Your task to perform on an android device: Open wifi settings Image 0: 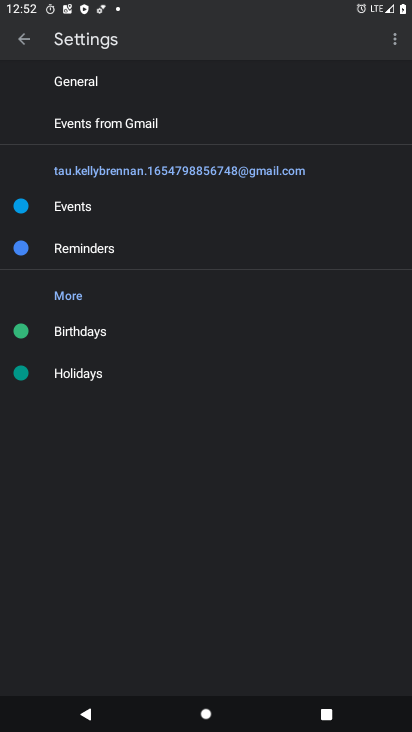
Step 0: press home button
Your task to perform on an android device: Open wifi settings Image 1: 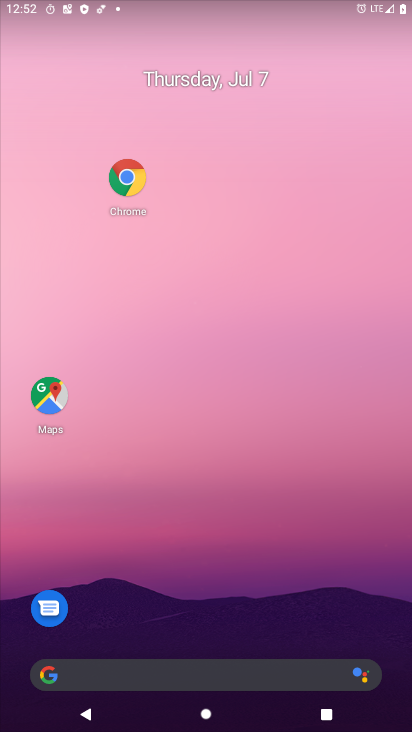
Step 1: drag from (120, 656) to (162, 15)
Your task to perform on an android device: Open wifi settings Image 2: 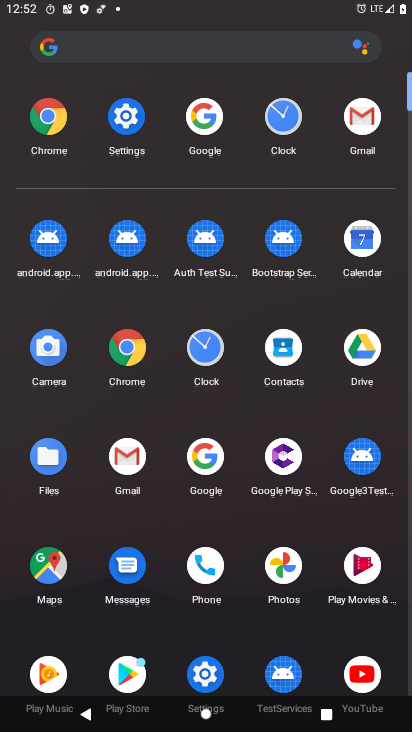
Step 2: click (126, 121)
Your task to perform on an android device: Open wifi settings Image 3: 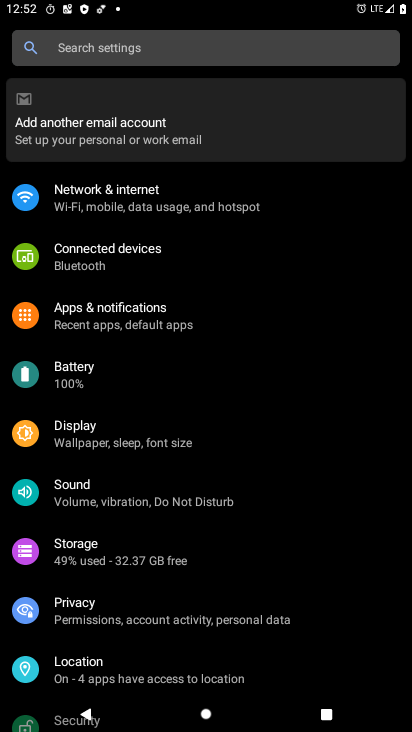
Step 3: click (83, 195)
Your task to perform on an android device: Open wifi settings Image 4: 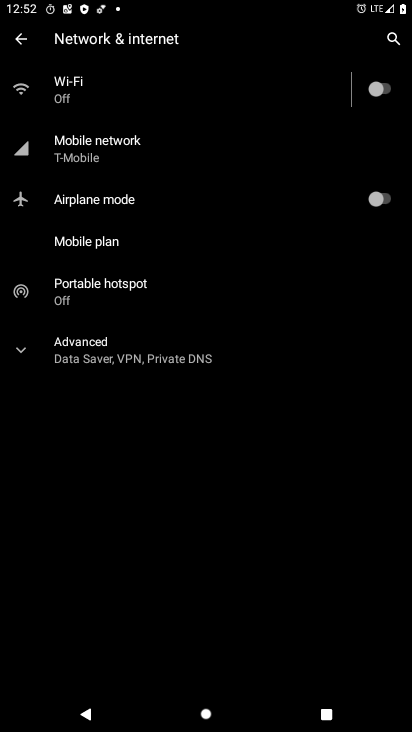
Step 4: click (84, 194)
Your task to perform on an android device: Open wifi settings Image 5: 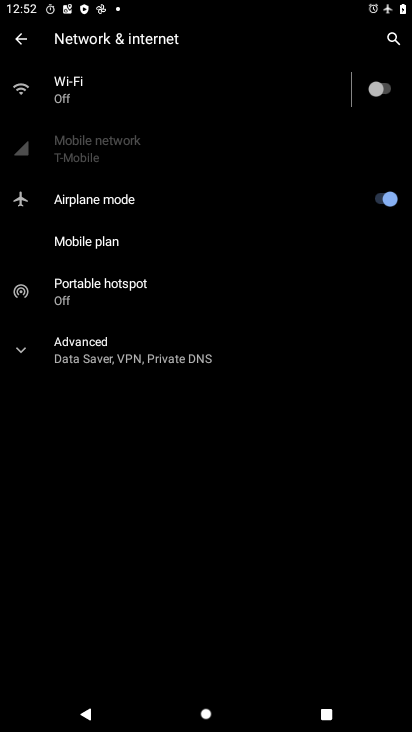
Step 5: click (74, 91)
Your task to perform on an android device: Open wifi settings Image 6: 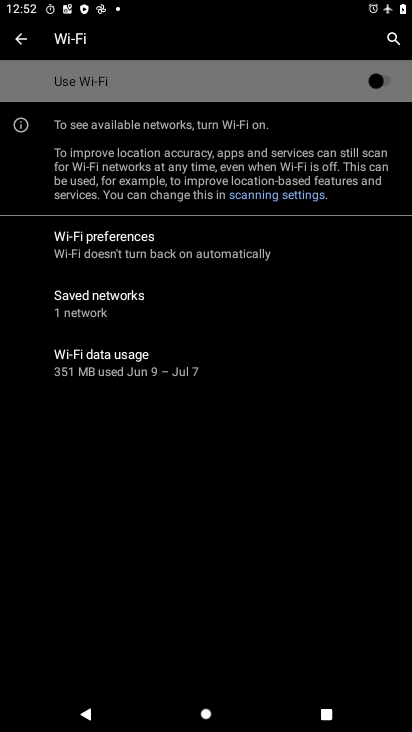
Step 6: click (15, 45)
Your task to perform on an android device: Open wifi settings Image 7: 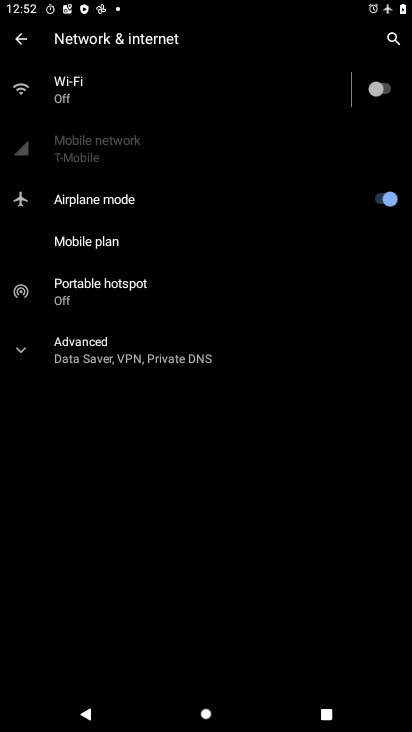
Step 7: click (81, 83)
Your task to perform on an android device: Open wifi settings Image 8: 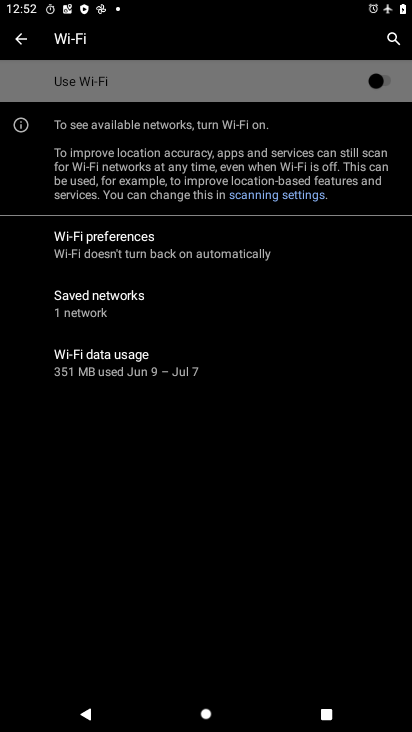
Step 8: click (387, 79)
Your task to perform on an android device: Open wifi settings Image 9: 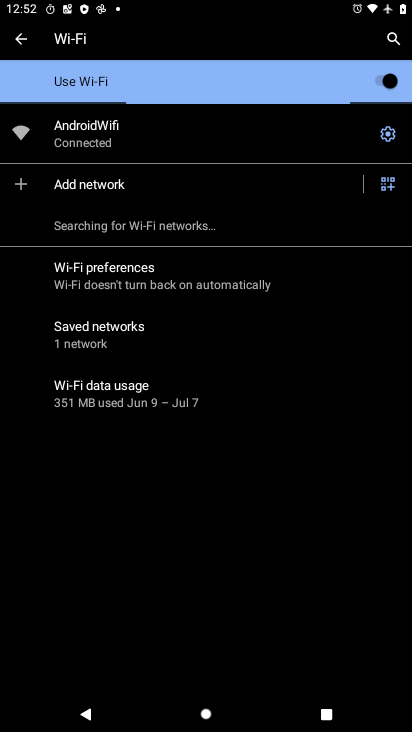
Step 9: click (382, 130)
Your task to perform on an android device: Open wifi settings Image 10: 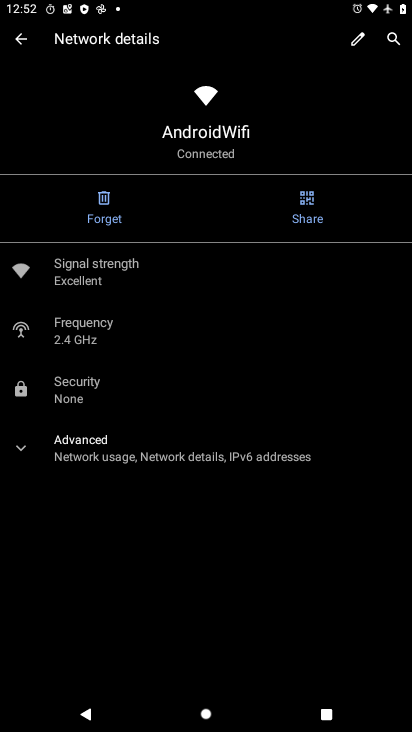
Step 10: click (394, 143)
Your task to perform on an android device: Open wifi settings Image 11: 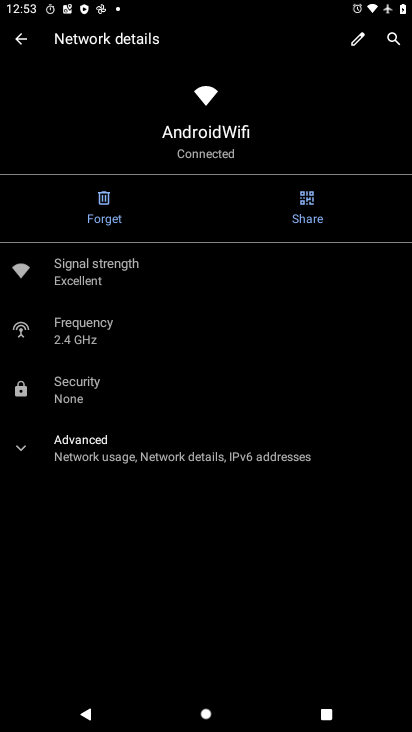
Step 11: press home button
Your task to perform on an android device: Open wifi settings Image 12: 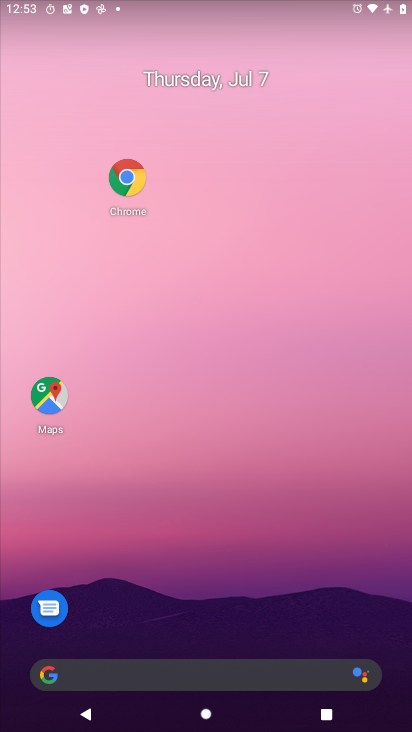
Step 12: drag from (223, 641) to (213, 204)
Your task to perform on an android device: Open wifi settings Image 13: 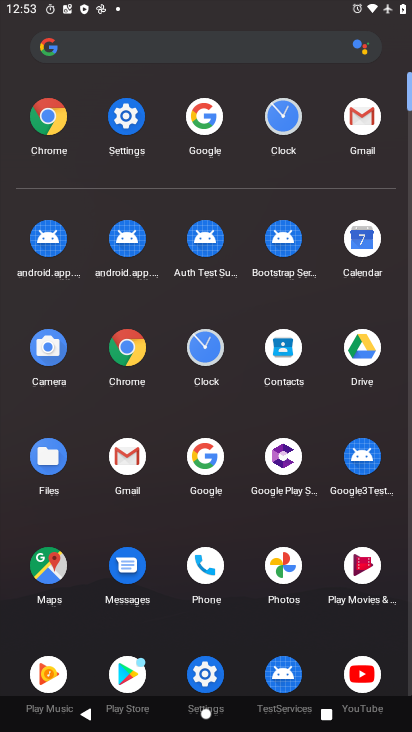
Step 13: click (130, 112)
Your task to perform on an android device: Open wifi settings Image 14: 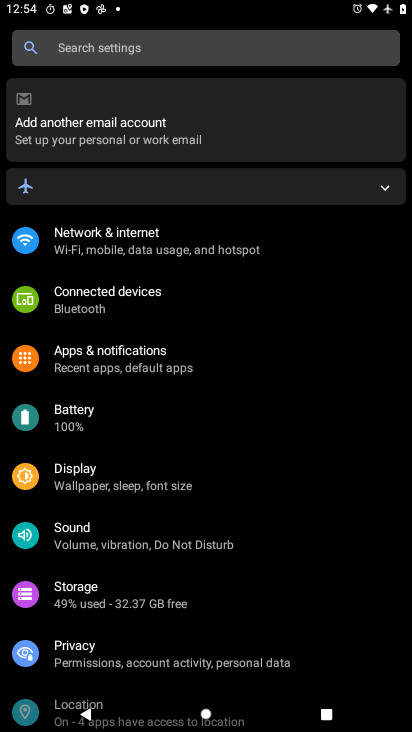
Step 14: click (87, 235)
Your task to perform on an android device: Open wifi settings Image 15: 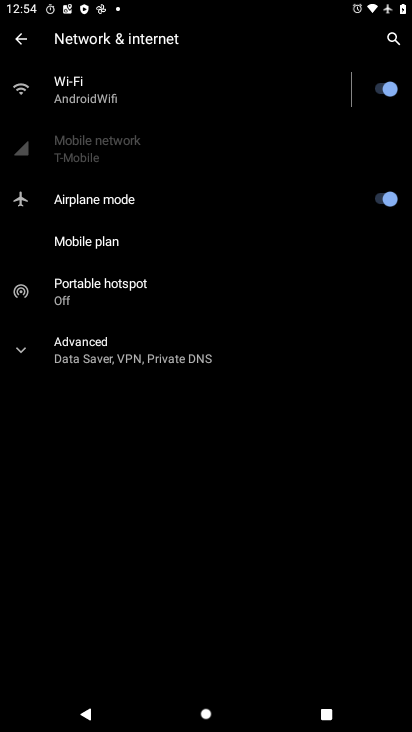
Step 15: task complete